Your task to perform on an android device: Open the map Image 0: 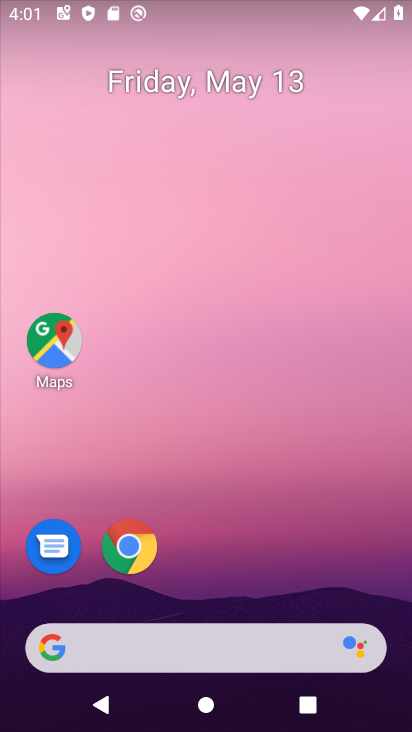
Step 0: click (68, 306)
Your task to perform on an android device: Open the map Image 1: 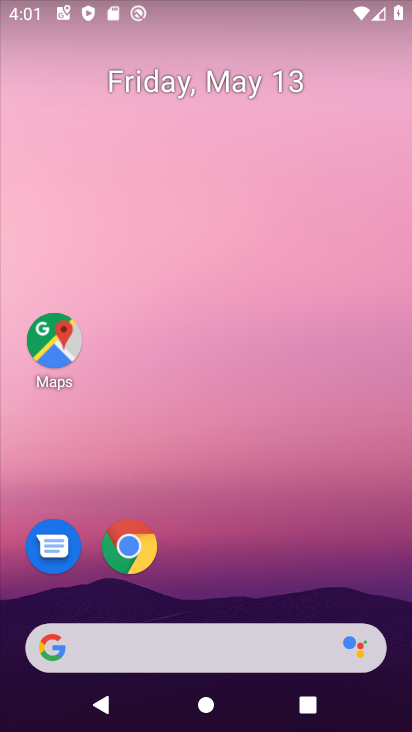
Step 1: click (64, 324)
Your task to perform on an android device: Open the map Image 2: 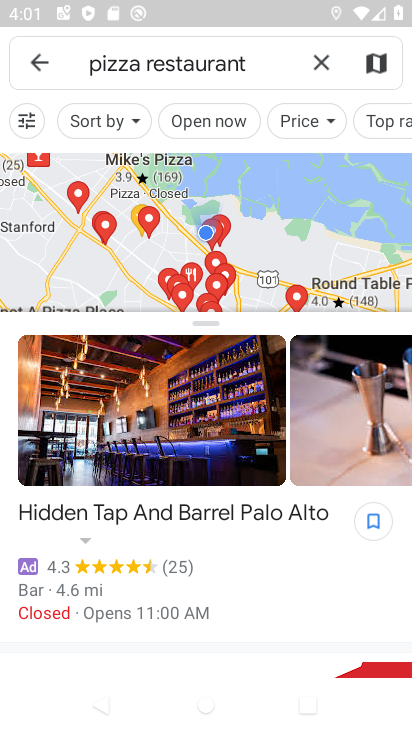
Step 2: task complete